Your task to perform on an android device: set an alarm Image 0: 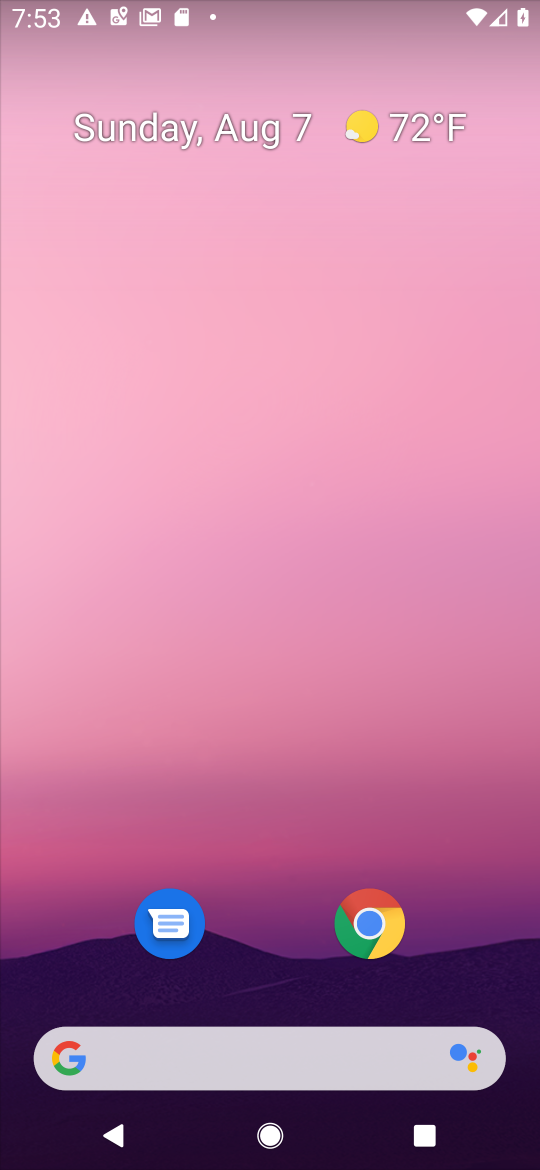
Step 0: press home button
Your task to perform on an android device: set an alarm Image 1: 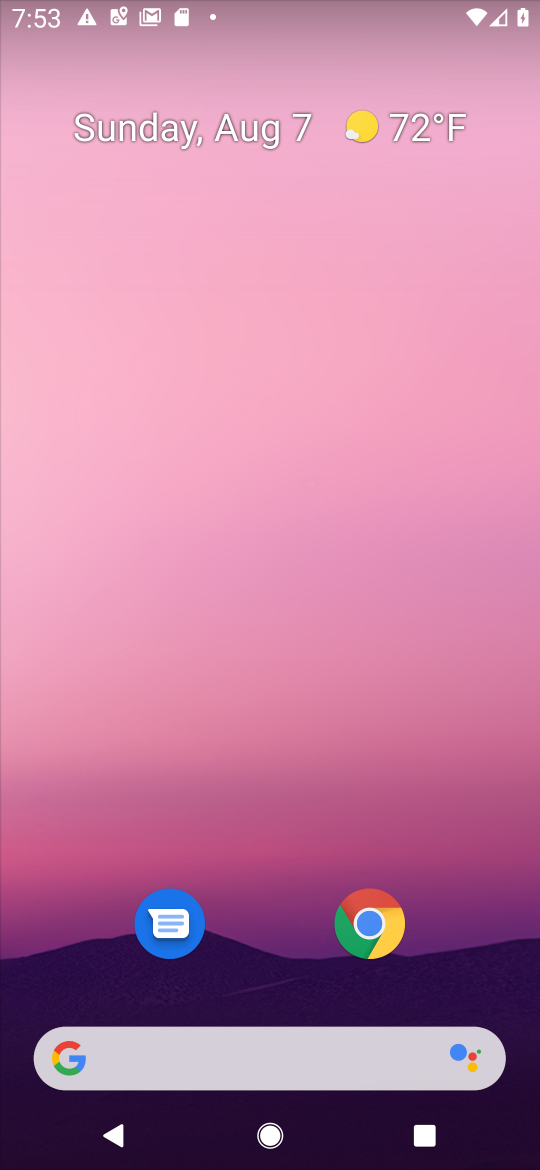
Step 1: drag from (454, 990) to (185, 33)
Your task to perform on an android device: set an alarm Image 2: 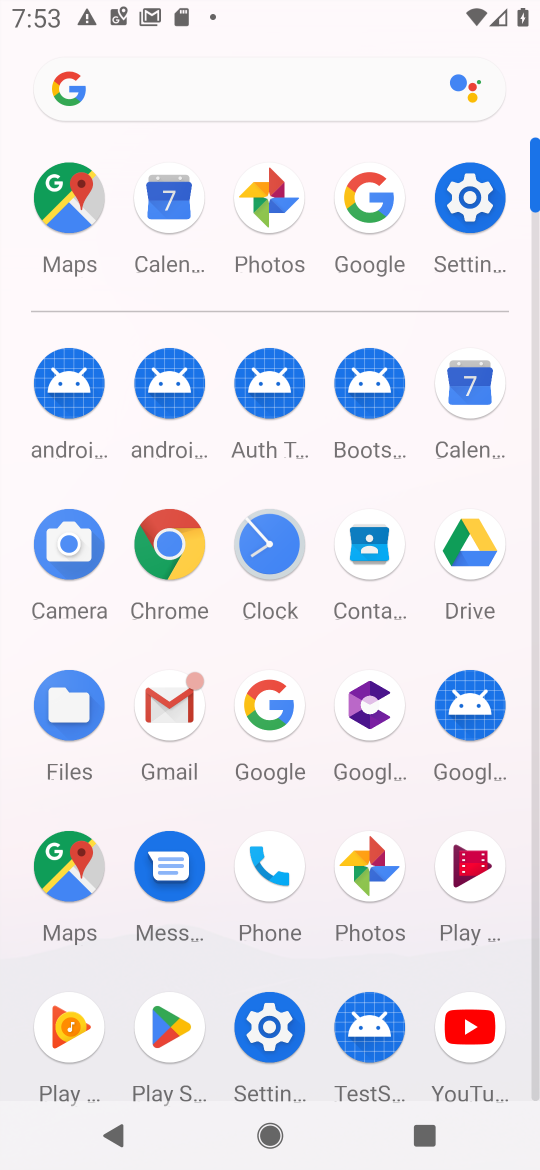
Step 2: click (266, 556)
Your task to perform on an android device: set an alarm Image 3: 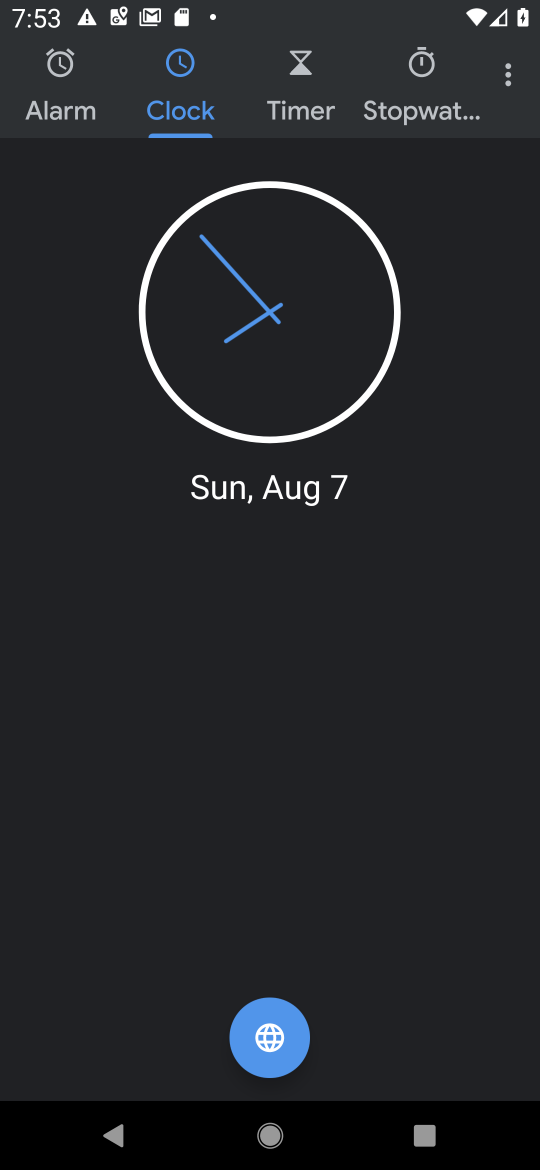
Step 3: click (75, 103)
Your task to perform on an android device: set an alarm Image 4: 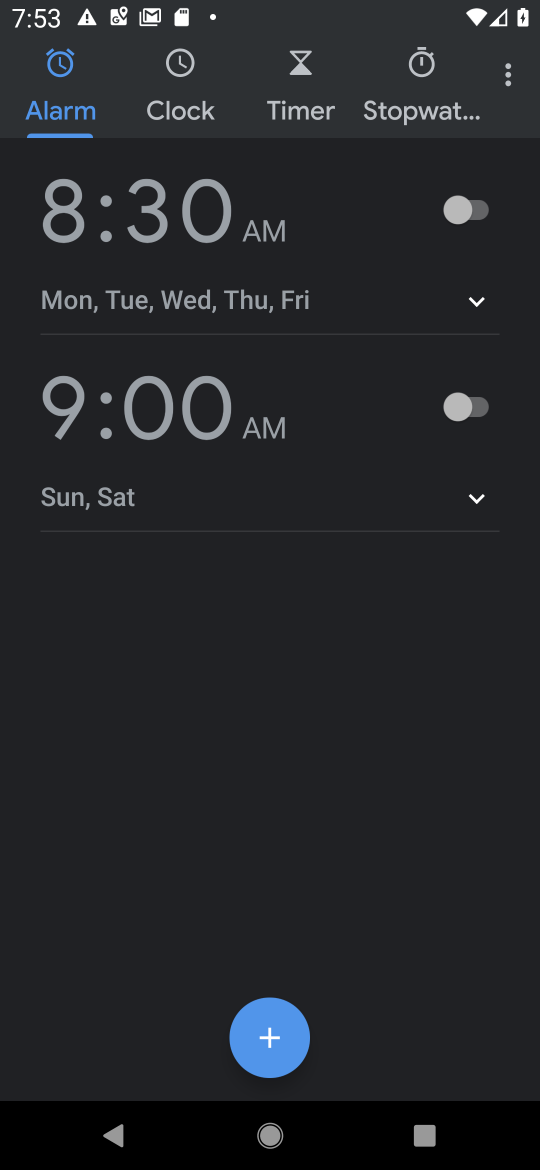
Step 4: click (474, 208)
Your task to perform on an android device: set an alarm Image 5: 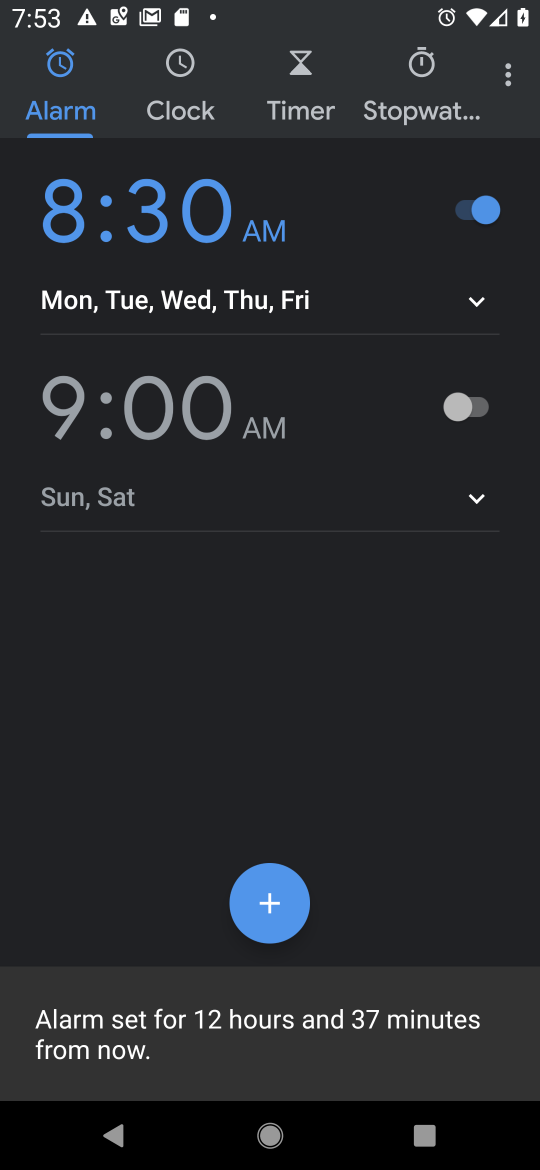
Step 5: task complete